Your task to perform on an android device: uninstall "Venmo" Image 0: 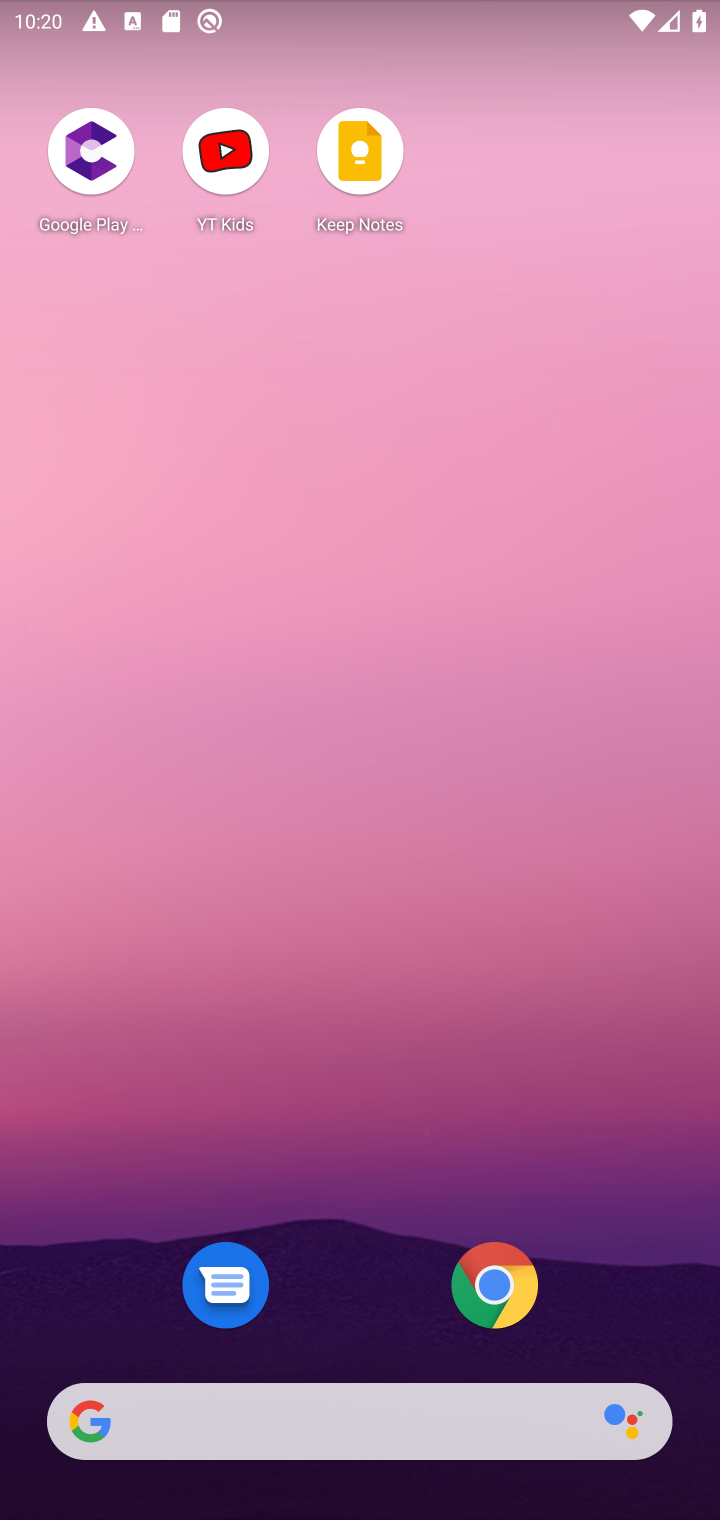
Step 0: drag from (303, 1420) to (307, 271)
Your task to perform on an android device: uninstall "Venmo" Image 1: 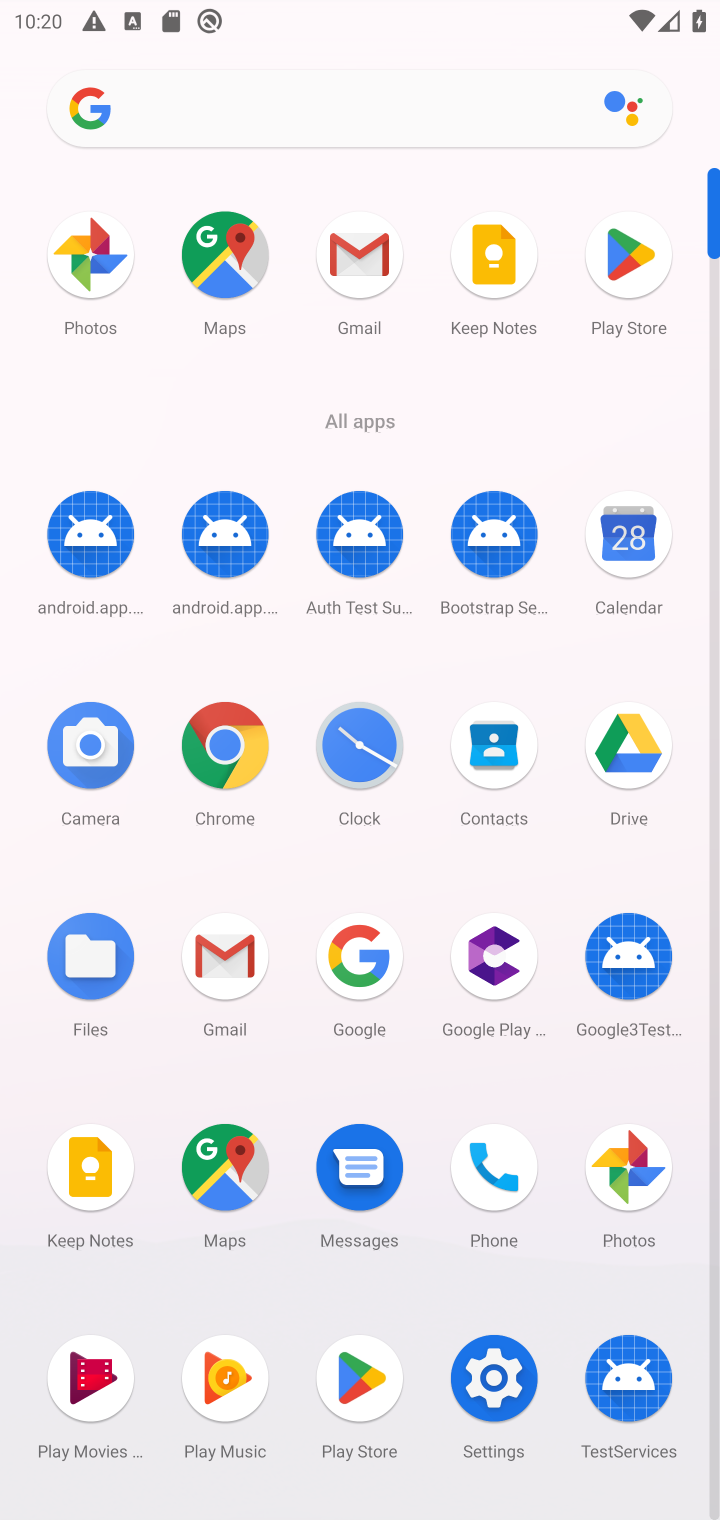
Step 1: click (624, 273)
Your task to perform on an android device: uninstall "Venmo" Image 2: 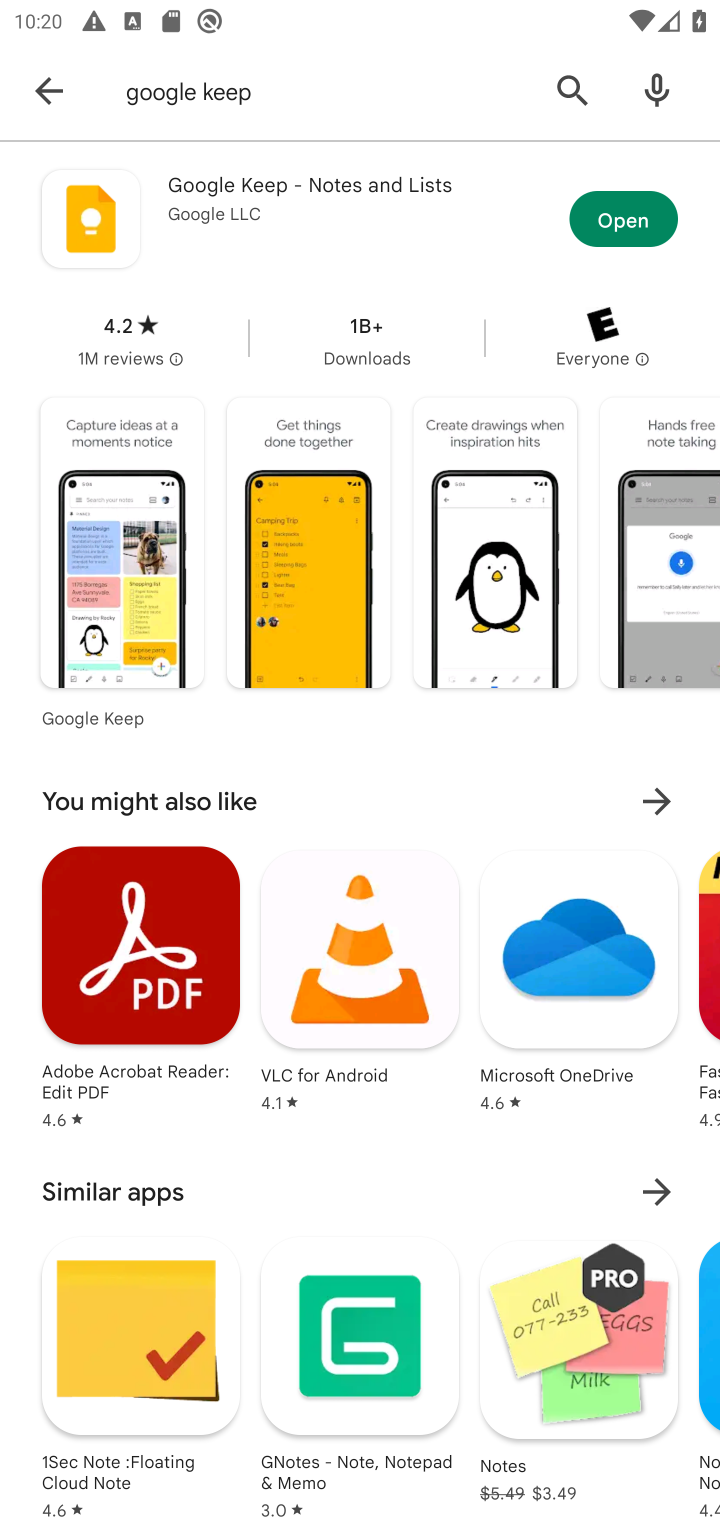
Step 2: click (571, 89)
Your task to perform on an android device: uninstall "Venmo" Image 3: 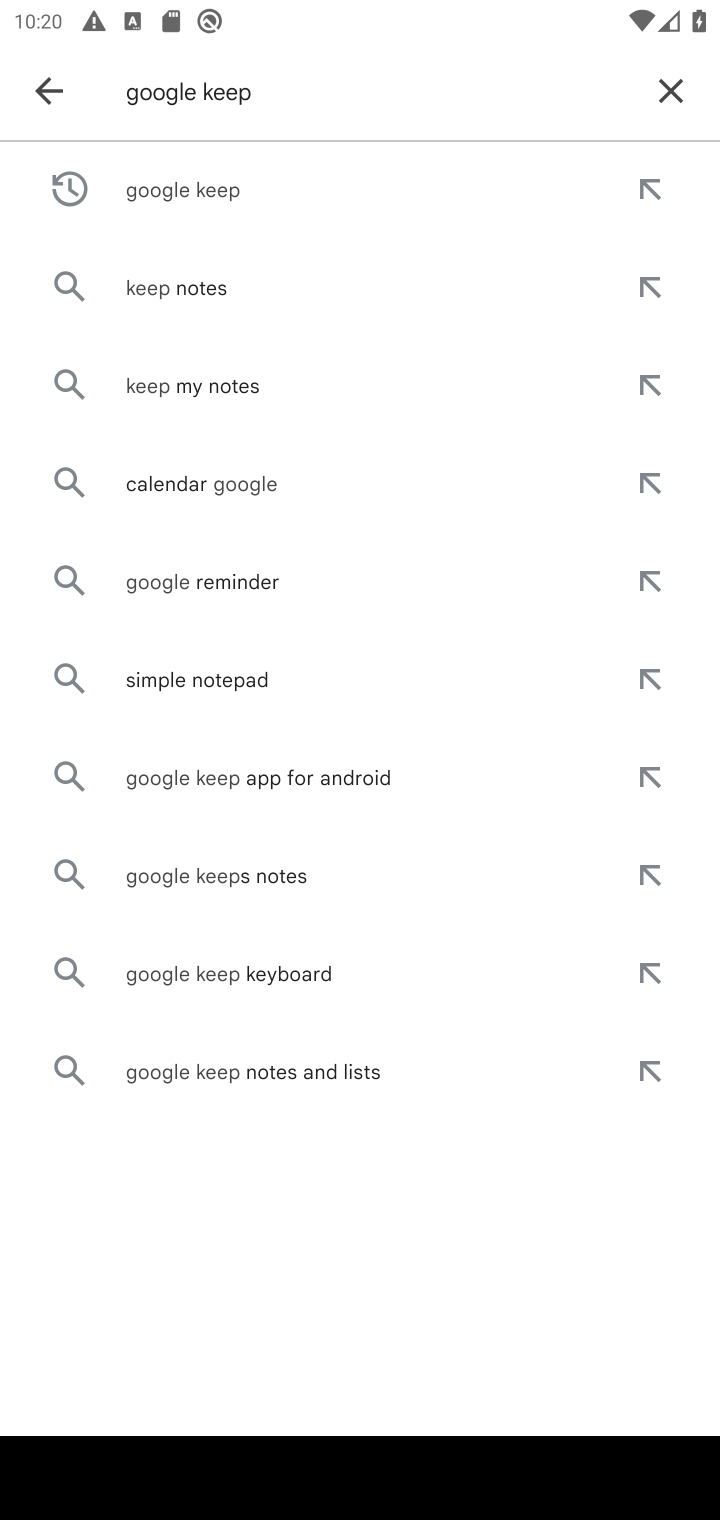
Step 3: click (668, 83)
Your task to perform on an android device: uninstall "Venmo" Image 4: 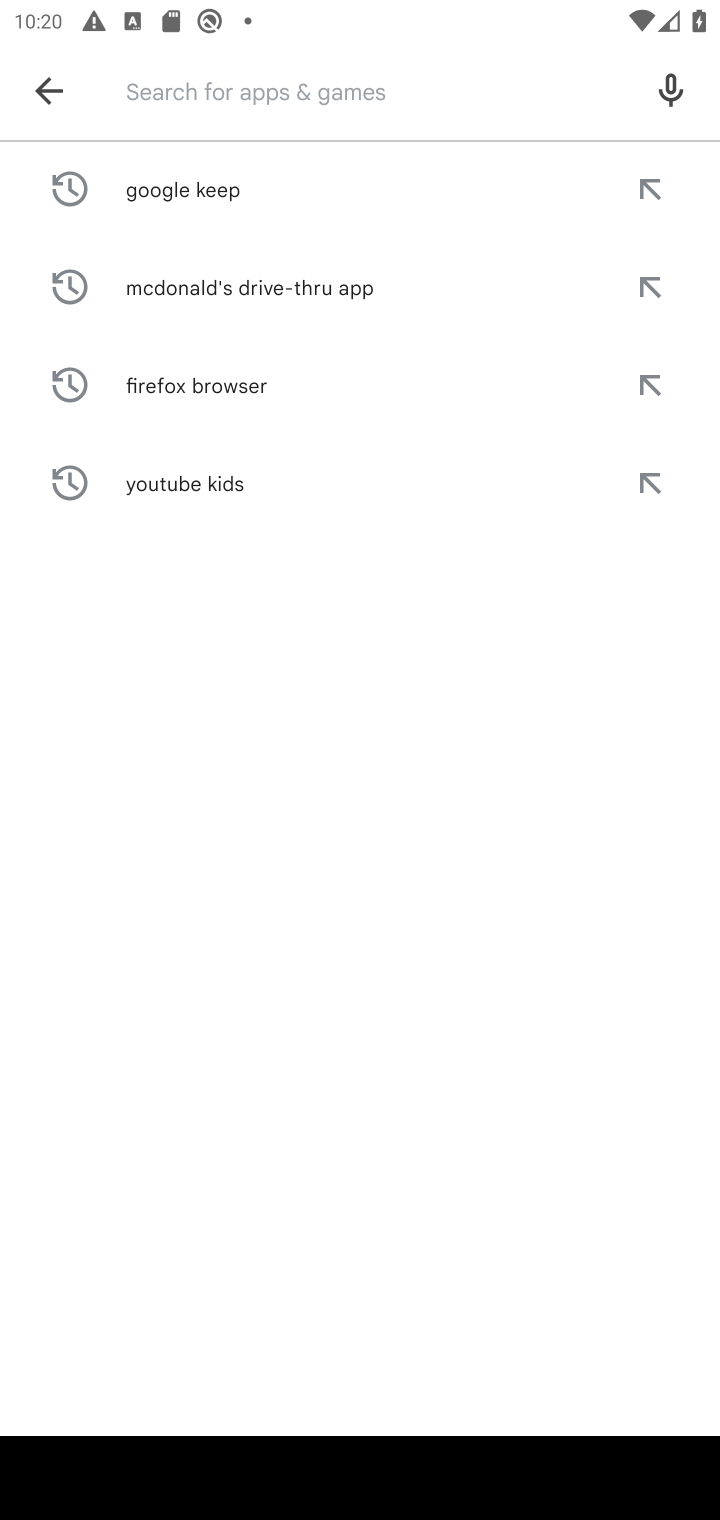
Step 4: type "Venmo"
Your task to perform on an android device: uninstall "Venmo" Image 5: 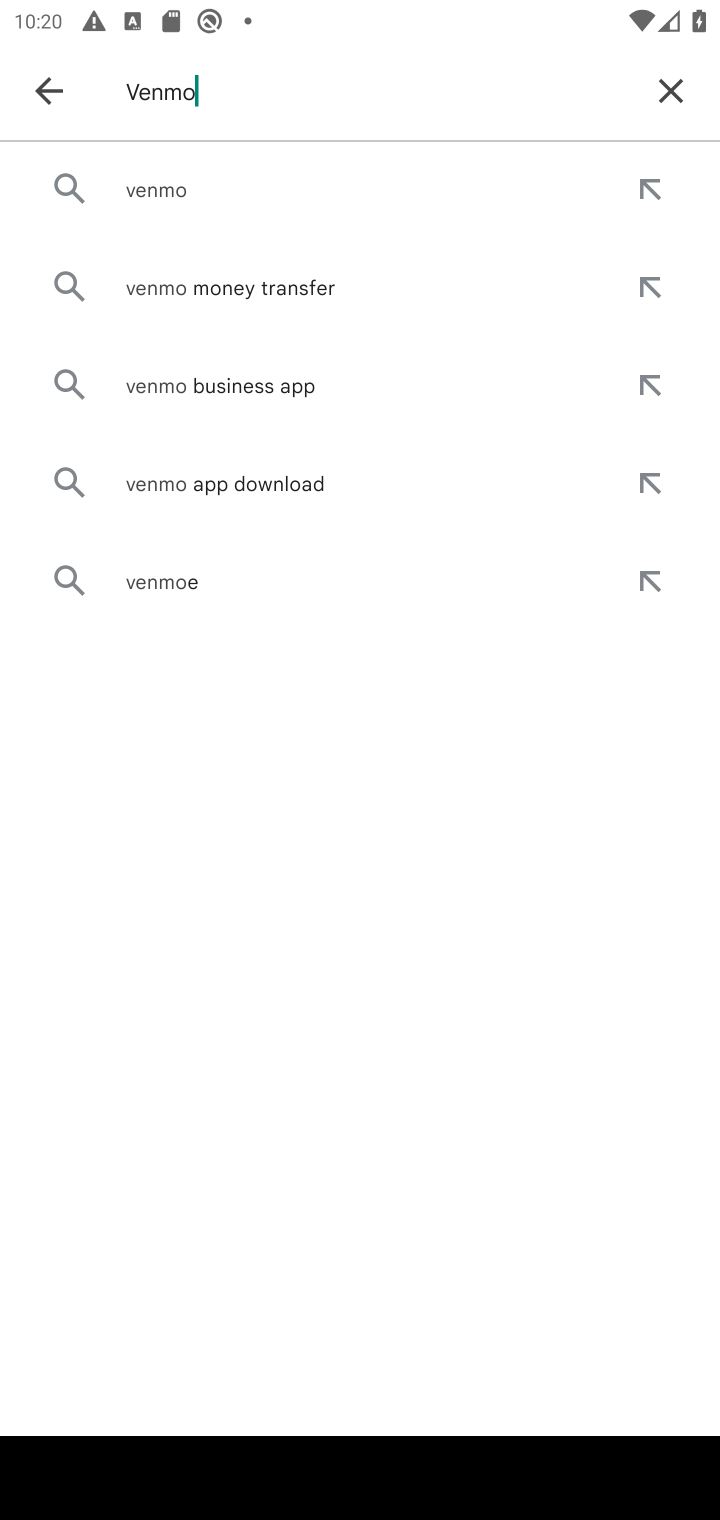
Step 5: click (178, 190)
Your task to perform on an android device: uninstall "Venmo" Image 6: 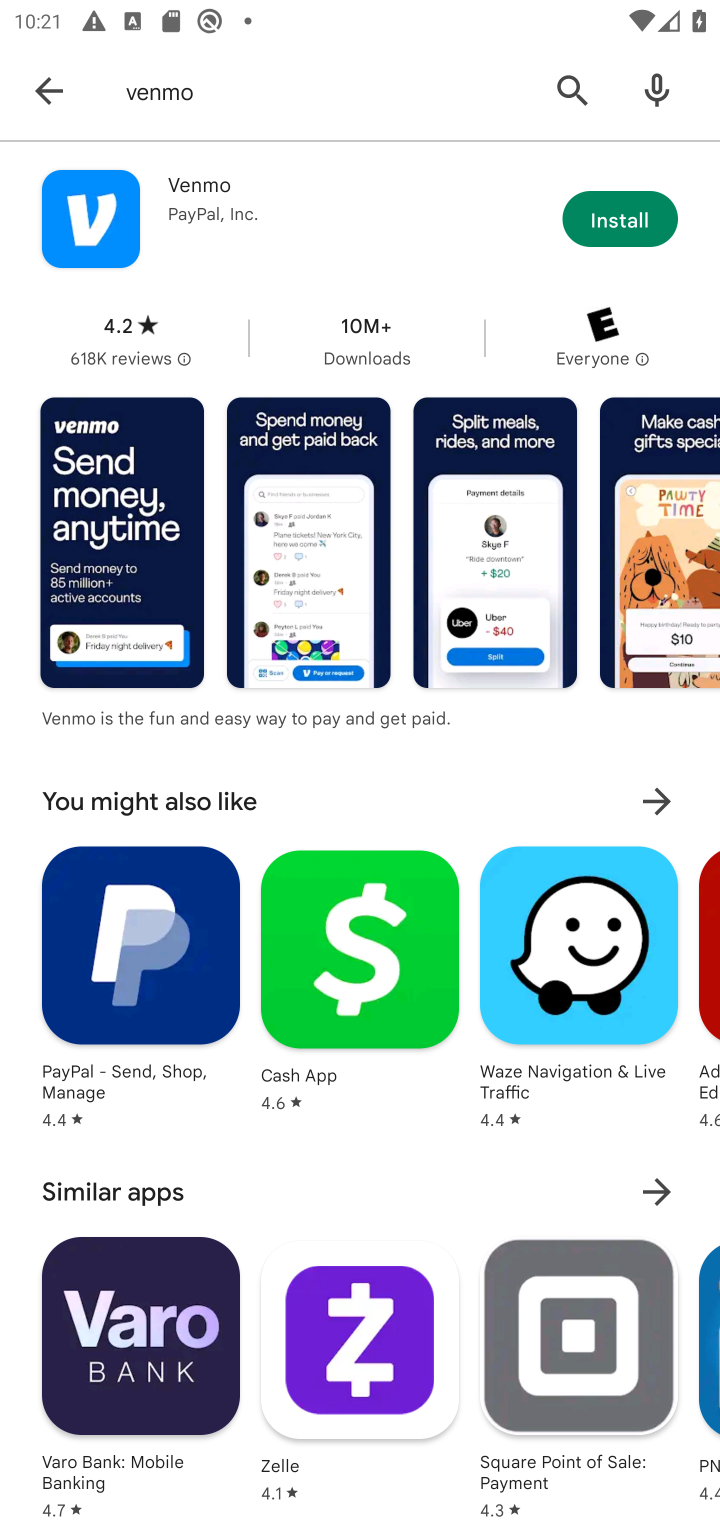
Step 6: task complete